Your task to perform on an android device: Search for "macbook pro 15 inch" on bestbuy, select the first entry, and add it to the cart. Image 0: 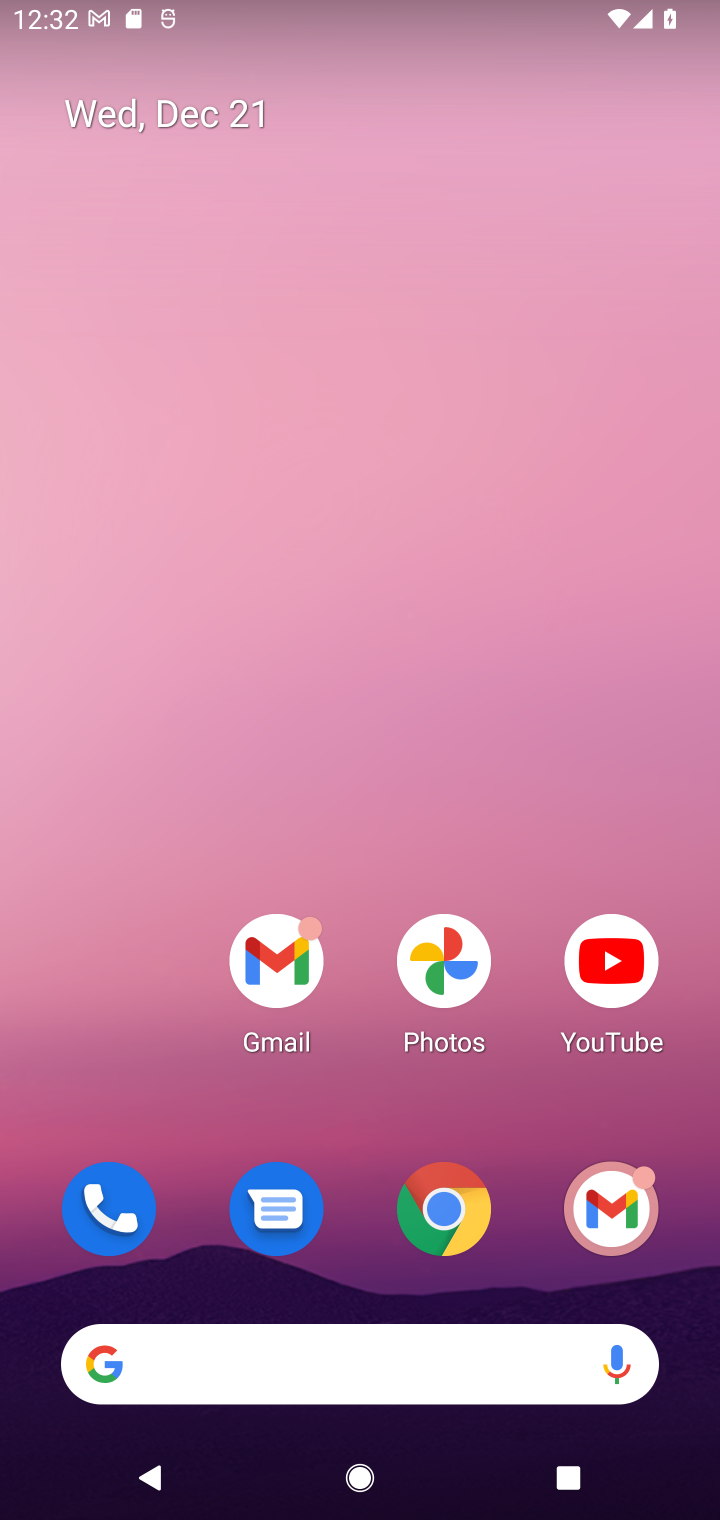
Step 0: click (436, 1218)
Your task to perform on an android device: Search for "macbook pro 15 inch" on bestbuy, select the first entry, and add it to the cart. Image 1: 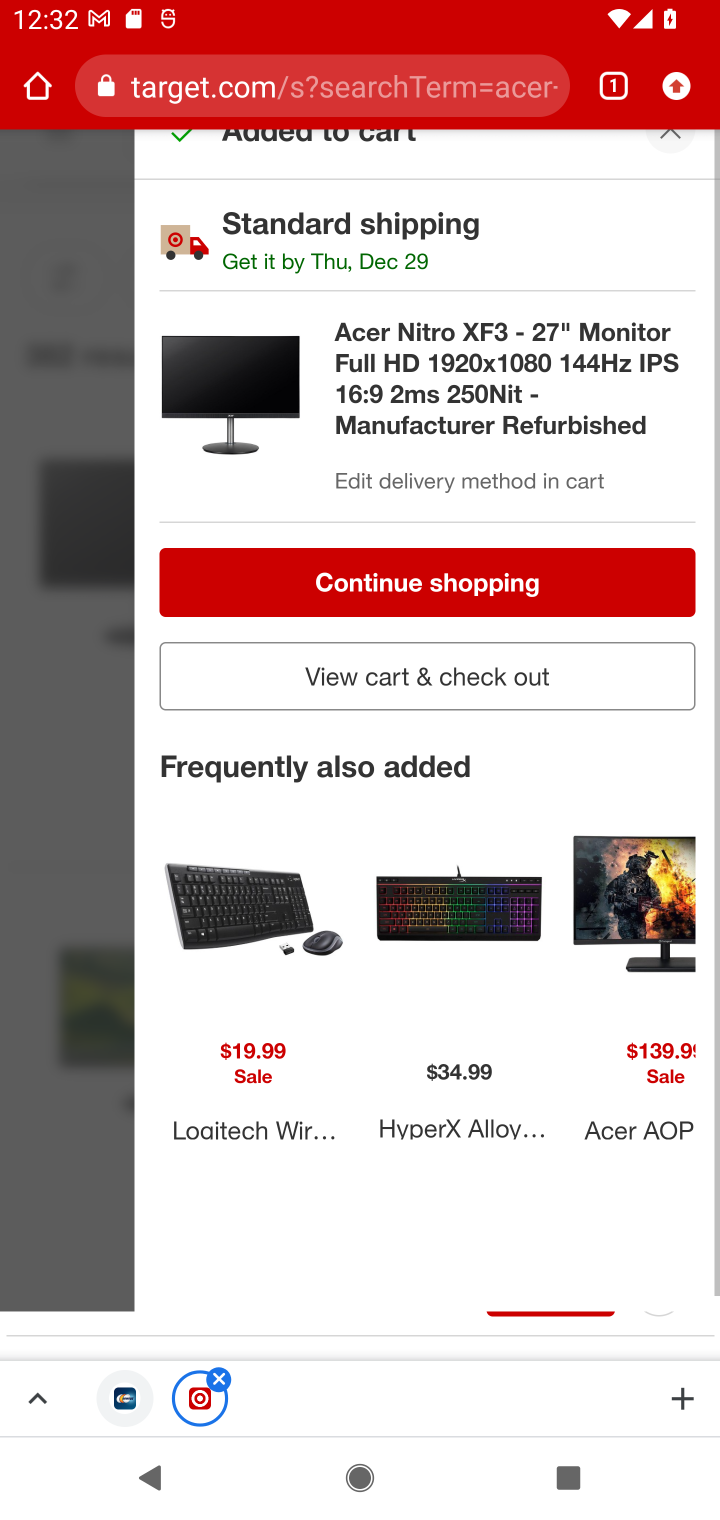
Step 1: click (250, 105)
Your task to perform on an android device: Search for "macbook pro 15 inch" on bestbuy, select the first entry, and add it to the cart. Image 2: 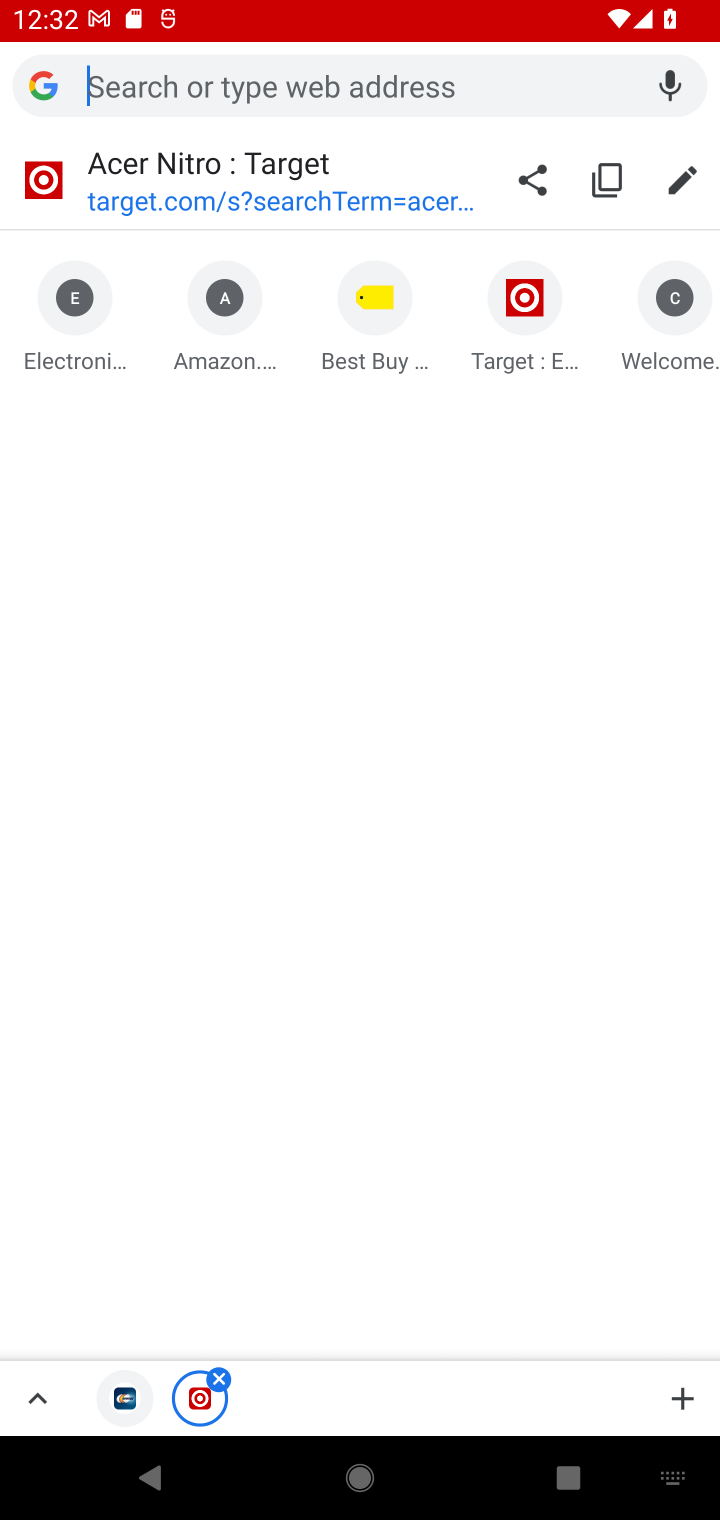
Step 2: click (364, 339)
Your task to perform on an android device: Search for "macbook pro 15 inch" on bestbuy, select the first entry, and add it to the cart. Image 3: 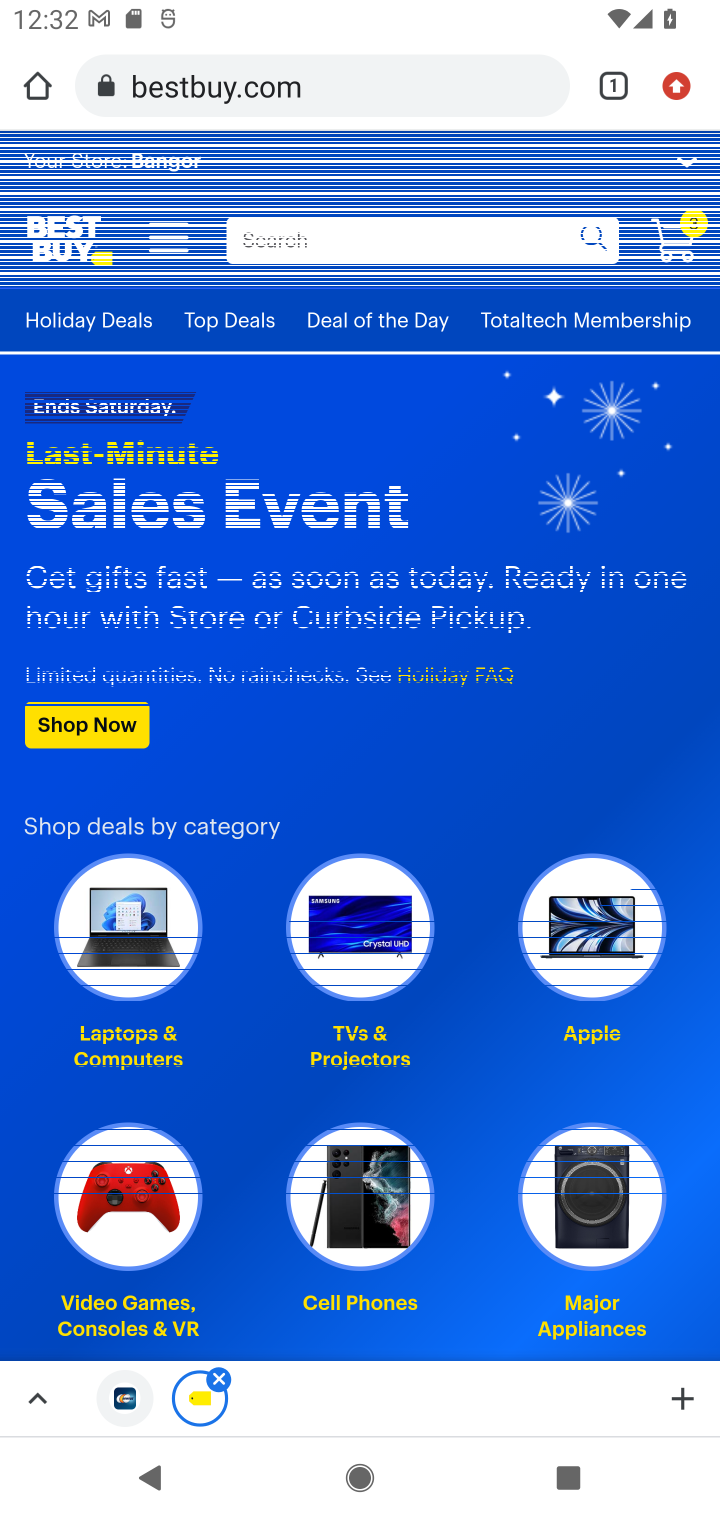
Step 3: click (270, 237)
Your task to perform on an android device: Search for "macbook pro 15 inch" on bestbuy, select the first entry, and add it to the cart. Image 4: 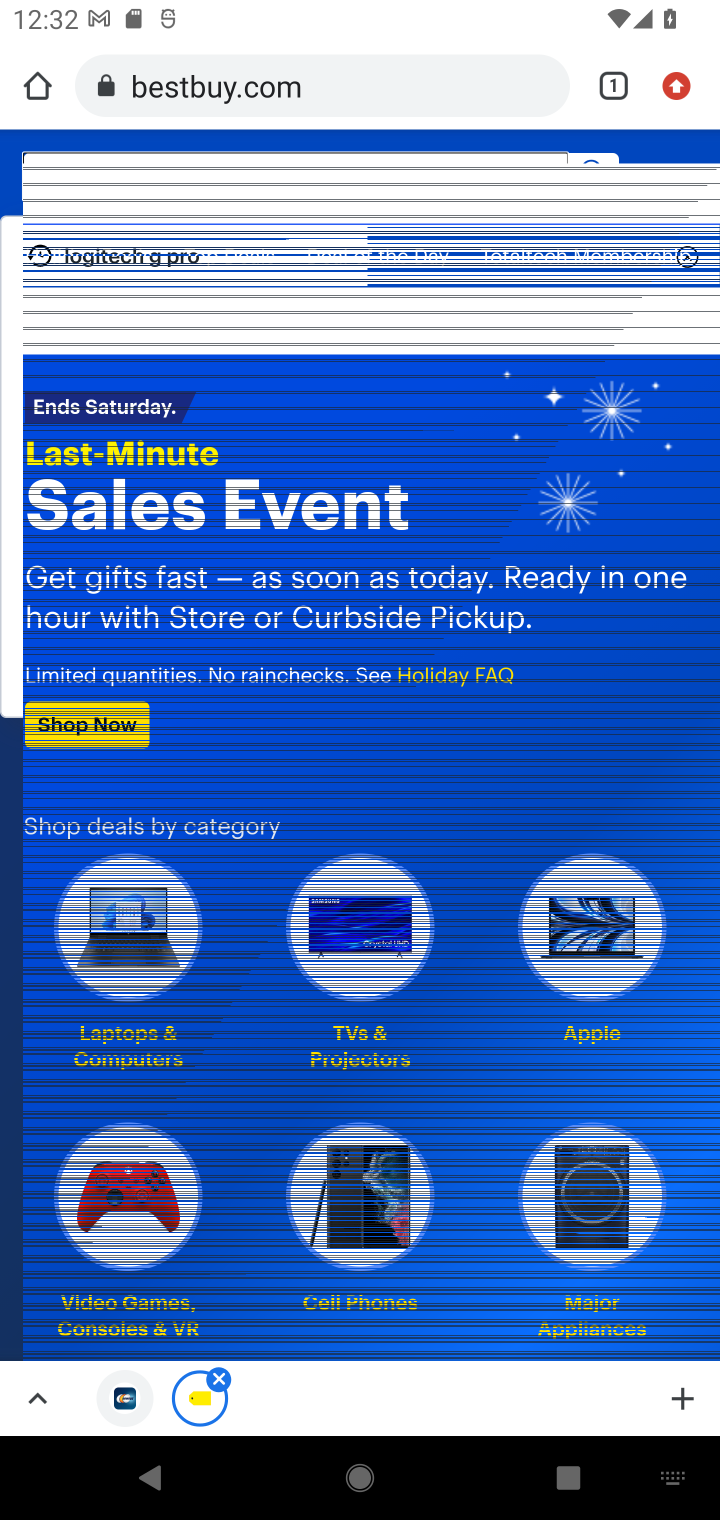
Step 4: type "macbook pro 15 inch"
Your task to perform on an android device: Search for "macbook pro 15 inch" on bestbuy, select the first entry, and add it to the cart. Image 5: 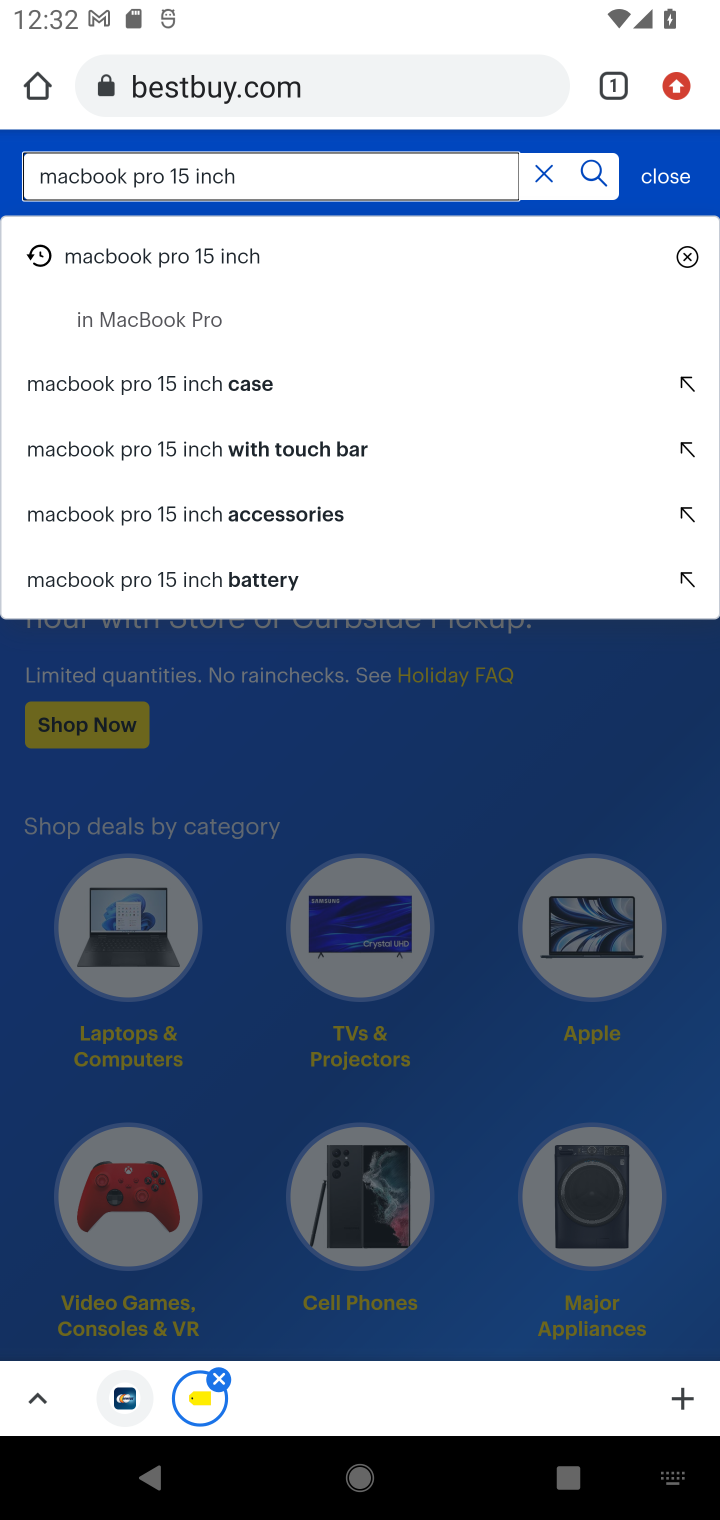
Step 5: click (208, 252)
Your task to perform on an android device: Search for "macbook pro 15 inch" on bestbuy, select the first entry, and add it to the cart. Image 6: 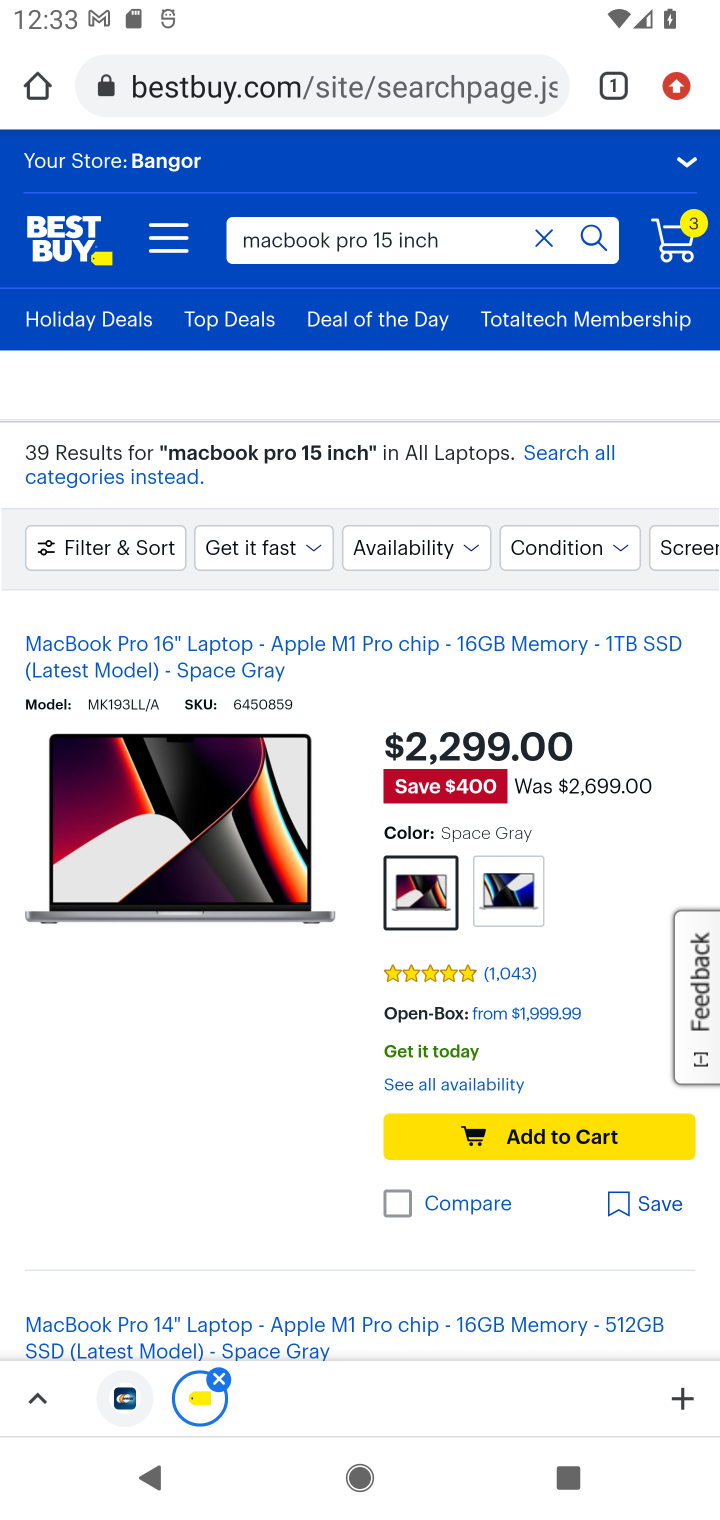
Step 6: task complete